Your task to perform on an android device: find which apps use the phone's location Image 0: 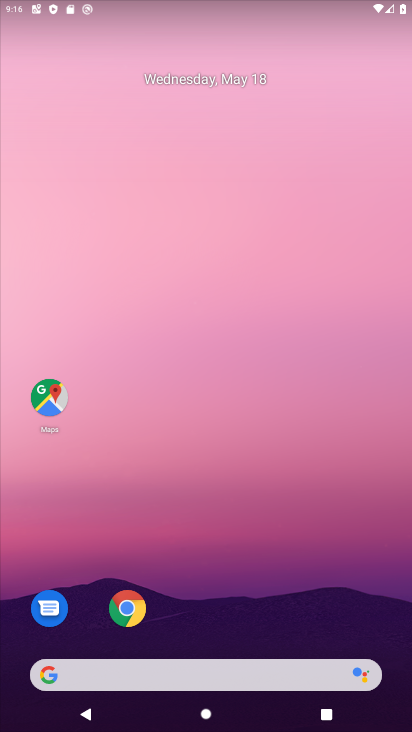
Step 0: drag from (54, 429) to (216, 147)
Your task to perform on an android device: find which apps use the phone's location Image 1: 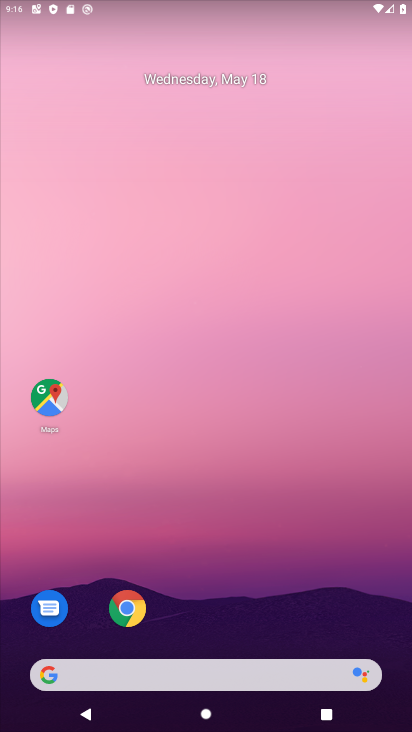
Step 1: drag from (121, 431) to (326, 71)
Your task to perform on an android device: find which apps use the phone's location Image 2: 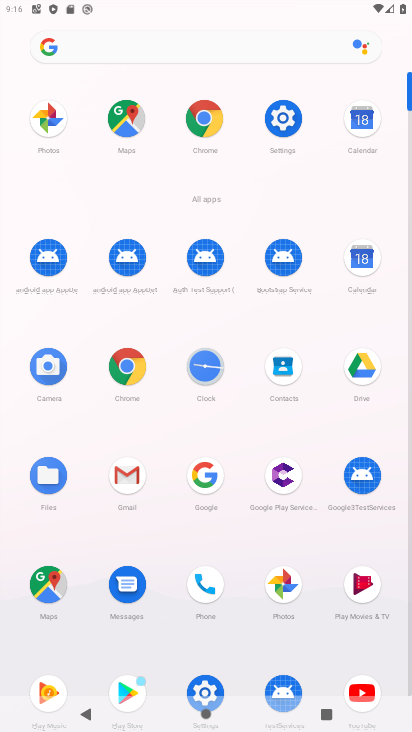
Step 2: click (288, 119)
Your task to perform on an android device: find which apps use the phone's location Image 3: 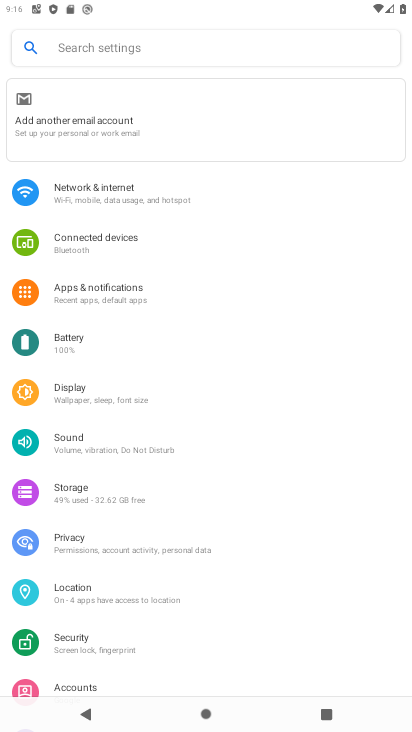
Step 3: click (77, 600)
Your task to perform on an android device: find which apps use the phone's location Image 4: 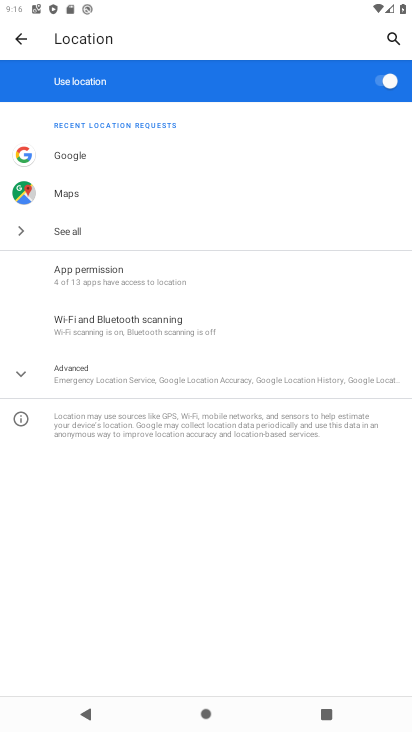
Step 4: click (146, 267)
Your task to perform on an android device: find which apps use the phone's location Image 5: 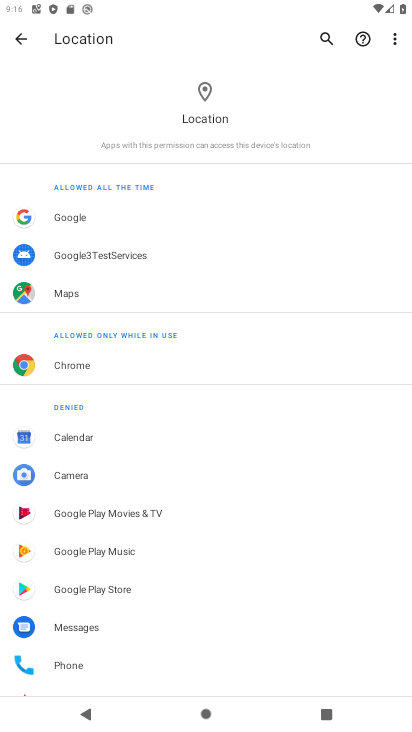
Step 5: task complete